Your task to perform on an android device: Show me popular games on the Play Store Image 0: 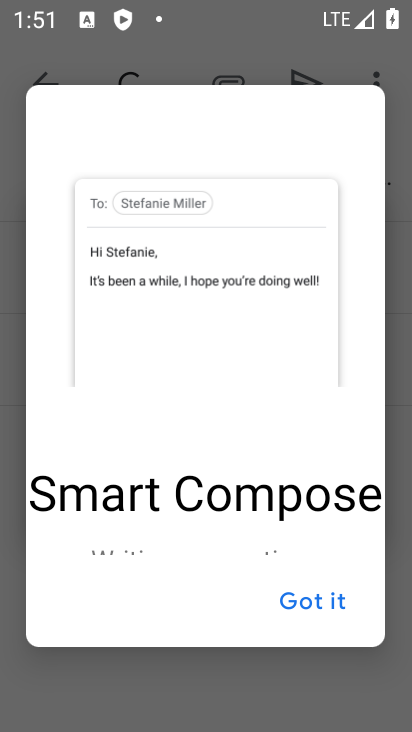
Step 0: press home button
Your task to perform on an android device: Show me popular games on the Play Store Image 1: 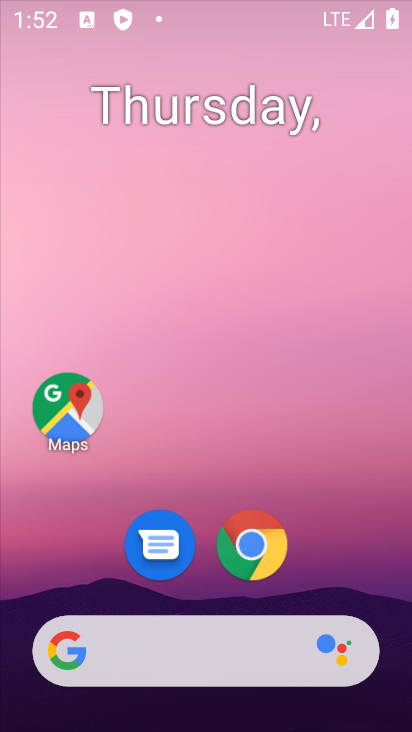
Step 1: drag from (217, 579) to (247, 112)
Your task to perform on an android device: Show me popular games on the Play Store Image 2: 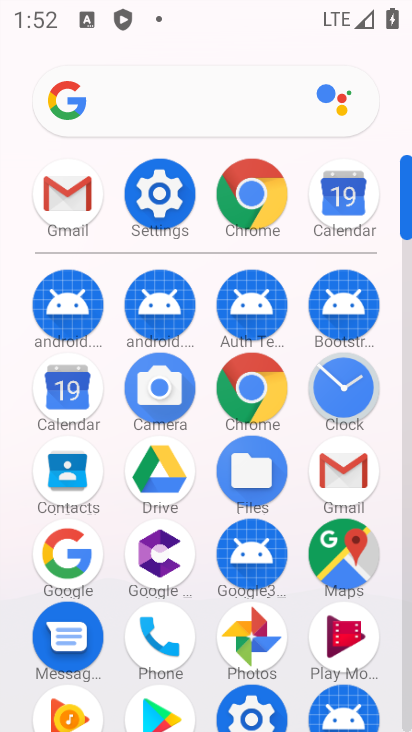
Step 2: drag from (189, 667) to (264, 273)
Your task to perform on an android device: Show me popular games on the Play Store Image 3: 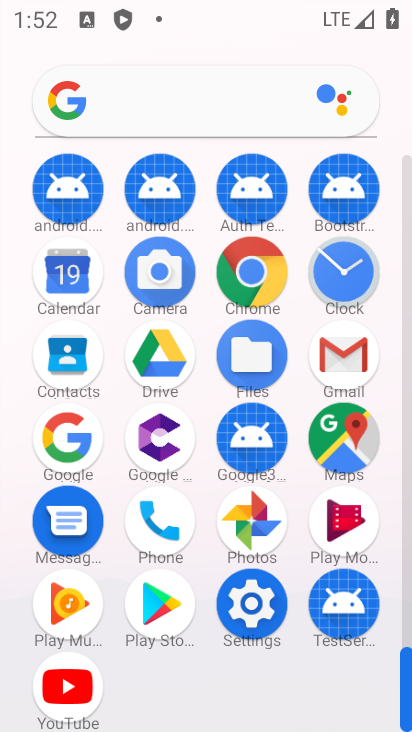
Step 3: click (178, 617)
Your task to perform on an android device: Show me popular games on the Play Store Image 4: 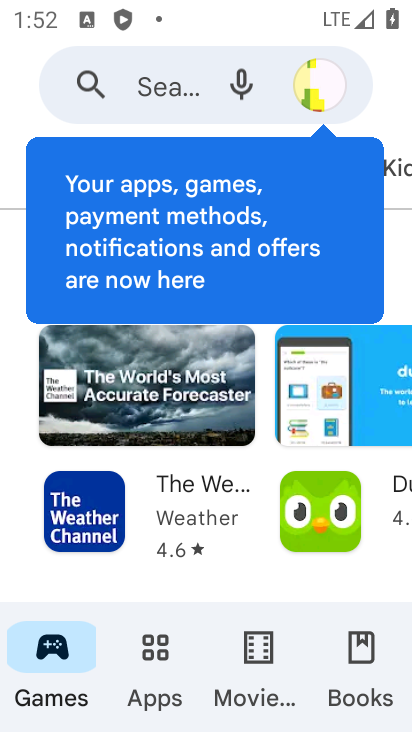
Step 4: drag from (248, 584) to (271, 38)
Your task to perform on an android device: Show me popular games on the Play Store Image 5: 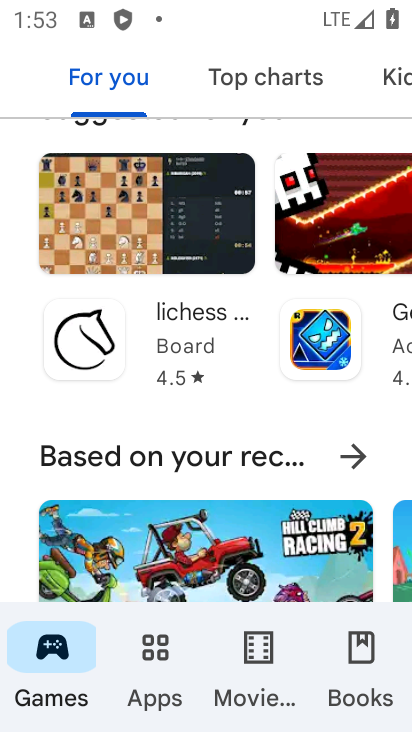
Step 5: drag from (278, 524) to (290, 137)
Your task to perform on an android device: Show me popular games on the Play Store Image 6: 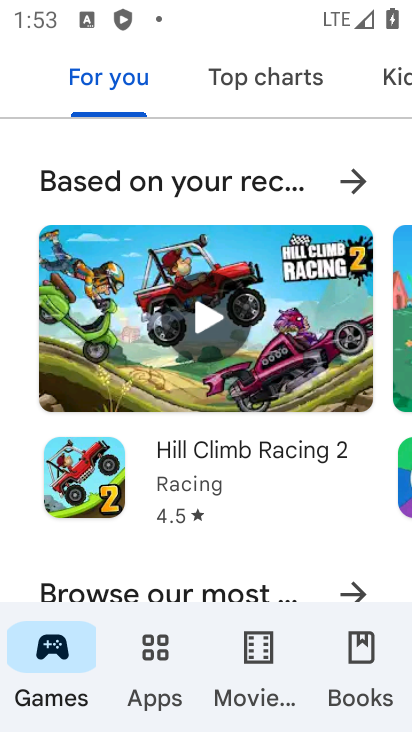
Step 6: drag from (264, 560) to (271, 262)
Your task to perform on an android device: Show me popular games on the Play Store Image 7: 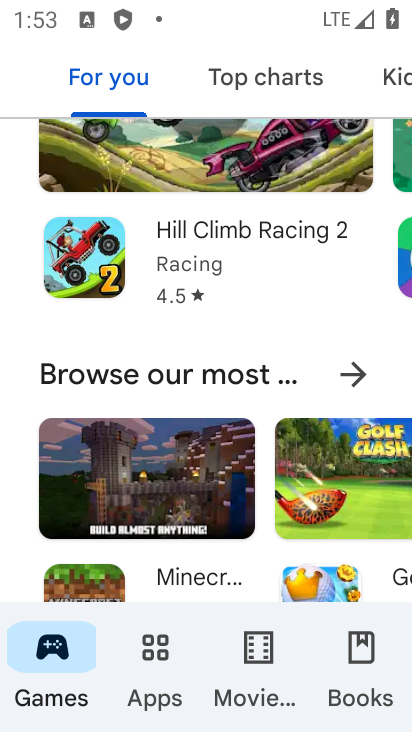
Step 7: click (353, 365)
Your task to perform on an android device: Show me popular games on the Play Store Image 8: 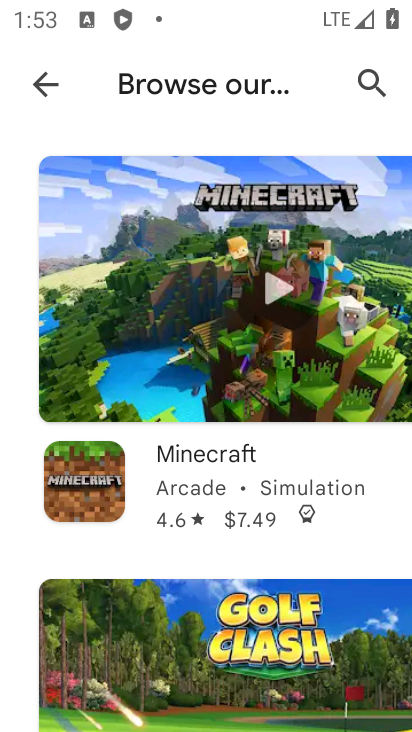
Step 8: task complete